Your task to perform on an android device: all mails in gmail Image 0: 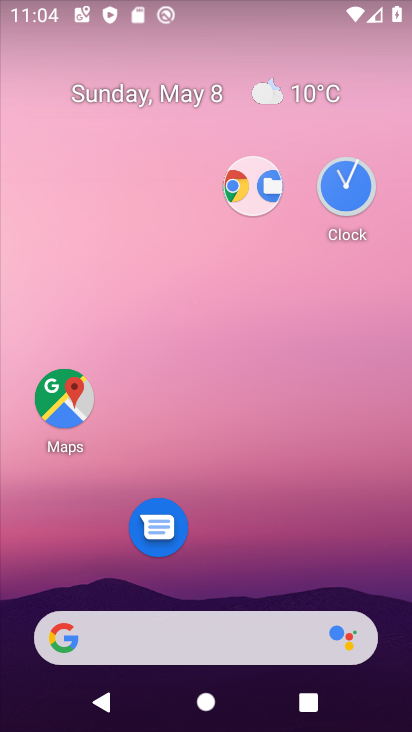
Step 0: drag from (270, 508) to (338, 5)
Your task to perform on an android device: all mails in gmail Image 1: 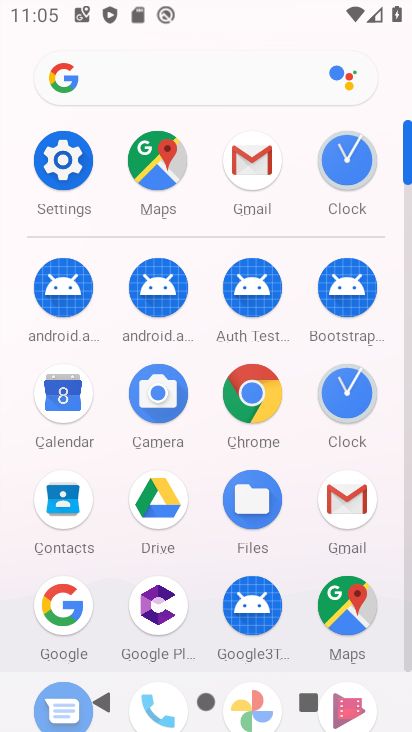
Step 1: click (373, 502)
Your task to perform on an android device: all mails in gmail Image 2: 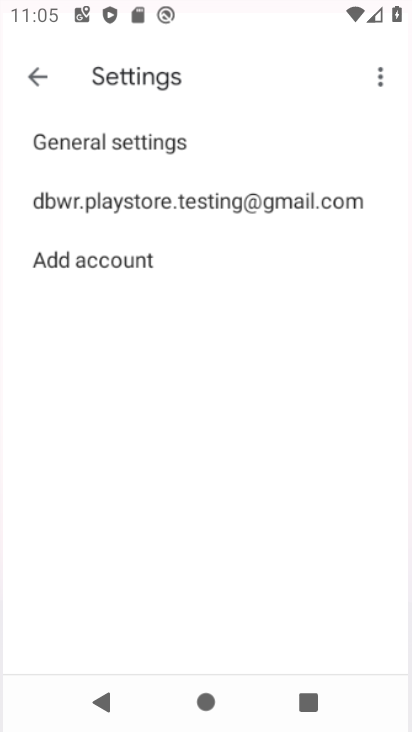
Step 2: click (352, 490)
Your task to perform on an android device: all mails in gmail Image 3: 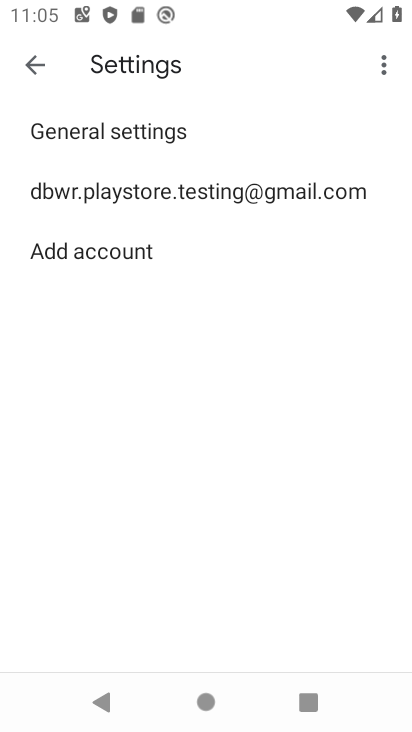
Step 3: click (30, 65)
Your task to perform on an android device: all mails in gmail Image 4: 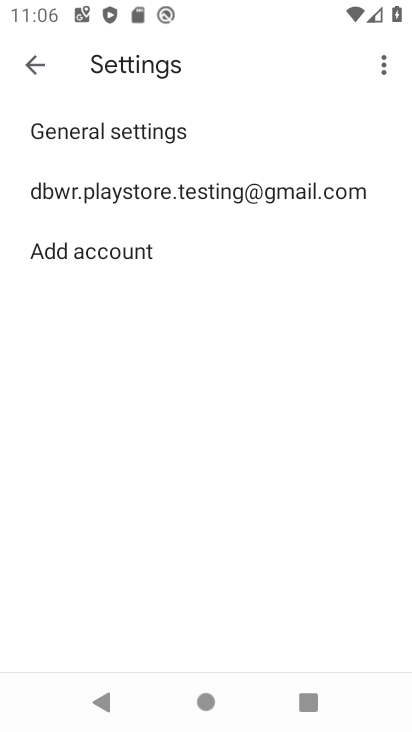
Step 4: click (14, 53)
Your task to perform on an android device: all mails in gmail Image 5: 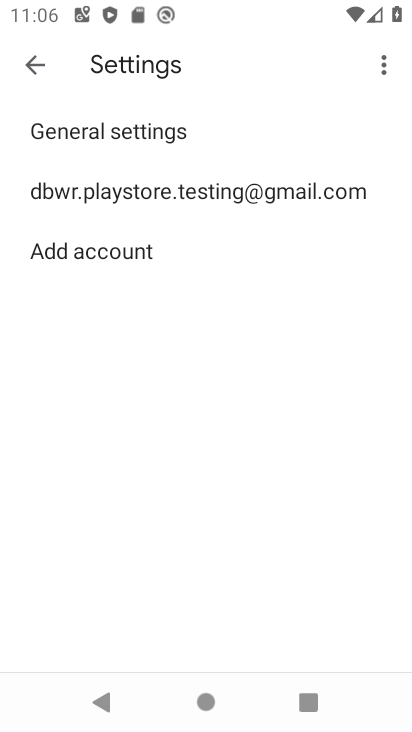
Step 5: click (31, 70)
Your task to perform on an android device: all mails in gmail Image 6: 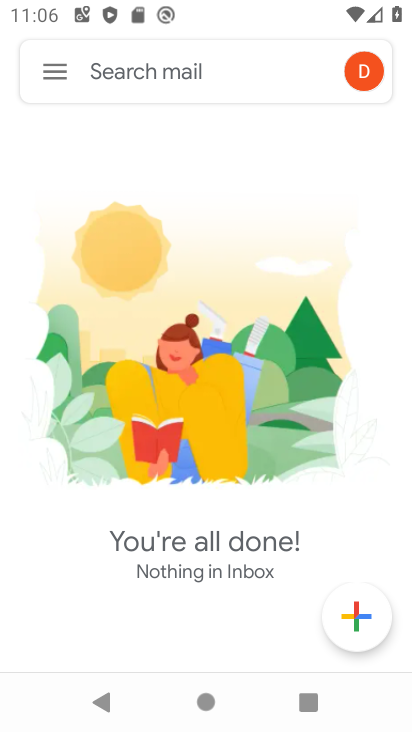
Step 6: click (58, 65)
Your task to perform on an android device: all mails in gmail Image 7: 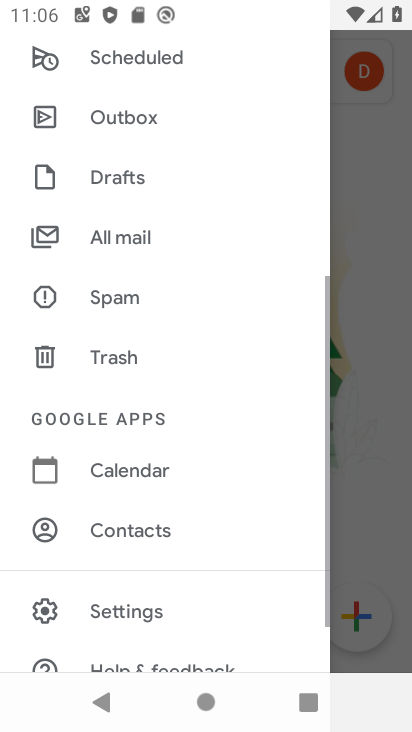
Step 7: click (148, 237)
Your task to perform on an android device: all mails in gmail Image 8: 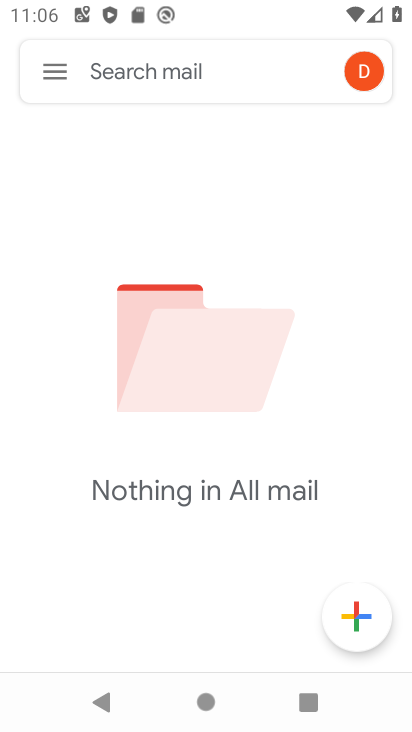
Step 8: task complete